Your task to perform on an android device: turn on notifications settings in the gmail app Image 0: 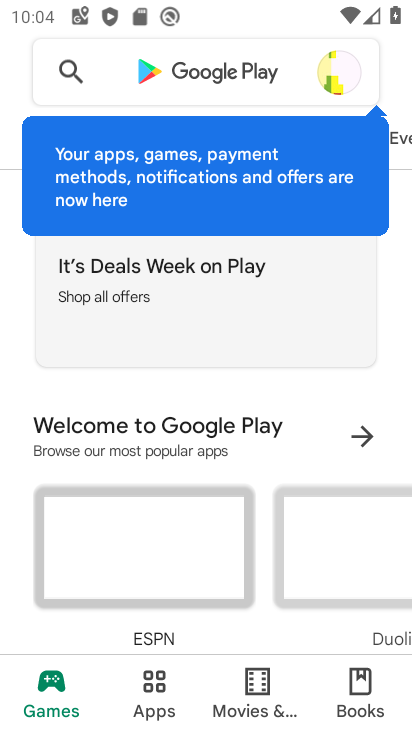
Step 0: press home button
Your task to perform on an android device: turn on notifications settings in the gmail app Image 1: 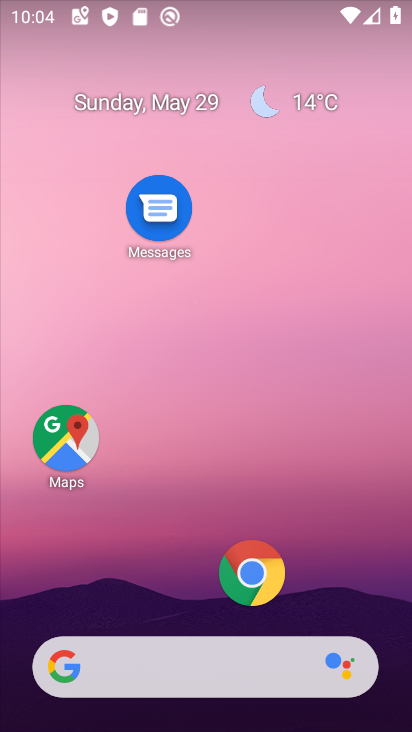
Step 1: drag from (153, 610) to (243, 11)
Your task to perform on an android device: turn on notifications settings in the gmail app Image 2: 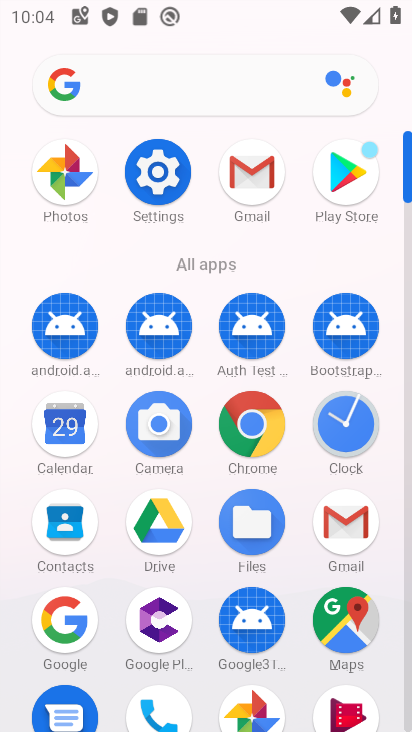
Step 2: click (251, 246)
Your task to perform on an android device: turn on notifications settings in the gmail app Image 3: 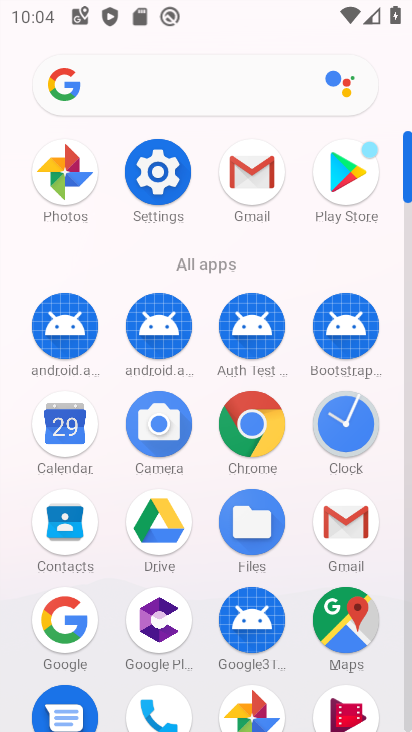
Step 3: click (256, 193)
Your task to perform on an android device: turn on notifications settings in the gmail app Image 4: 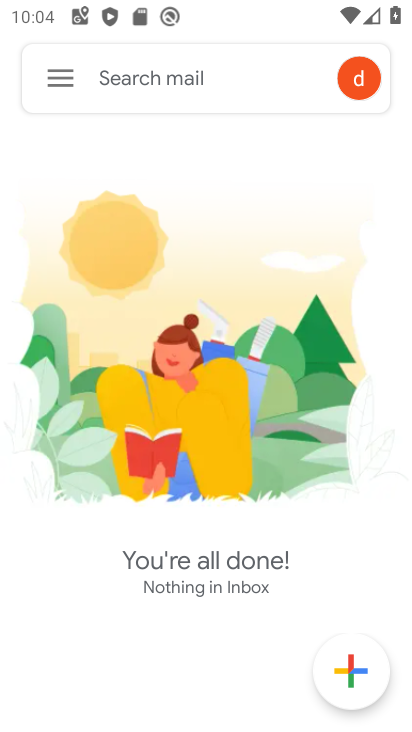
Step 4: click (54, 87)
Your task to perform on an android device: turn on notifications settings in the gmail app Image 5: 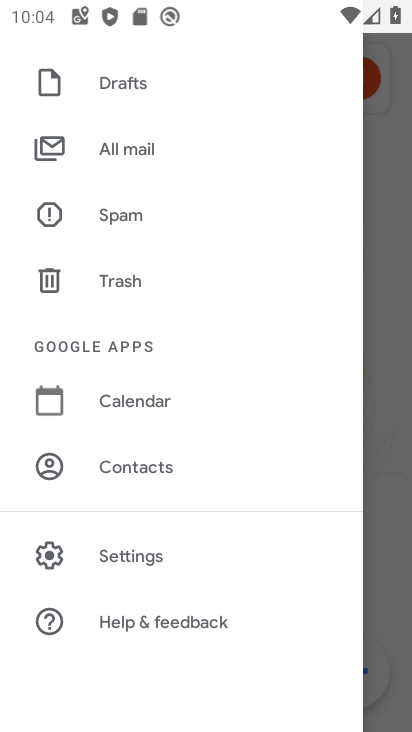
Step 5: click (75, 560)
Your task to perform on an android device: turn on notifications settings in the gmail app Image 6: 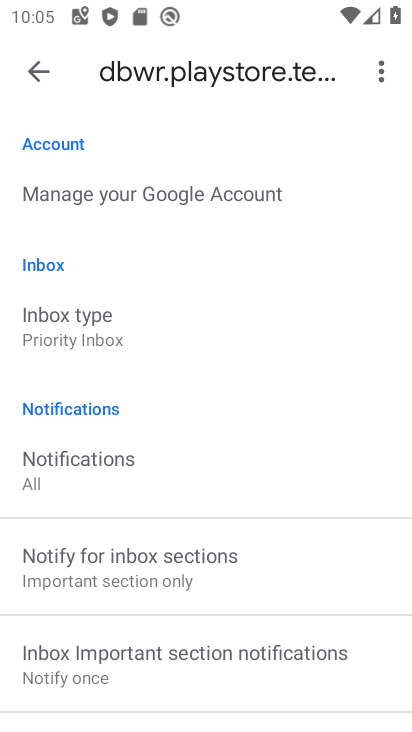
Step 6: click (150, 455)
Your task to perform on an android device: turn on notifications settings in the gmail app Image 7: 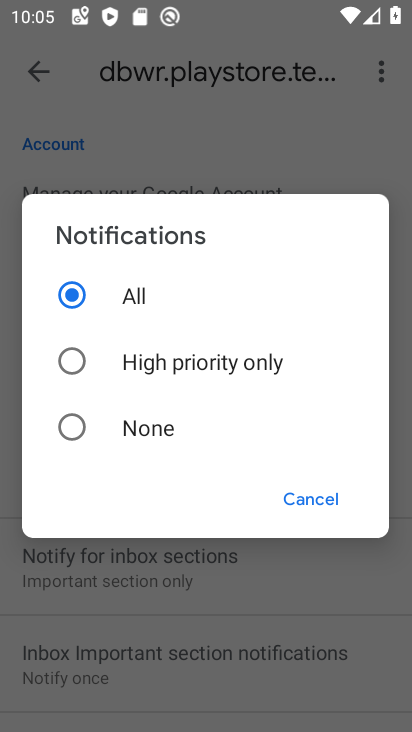
Step 7: task complete